Your task to perform on an android device: Go to Google Image 0: 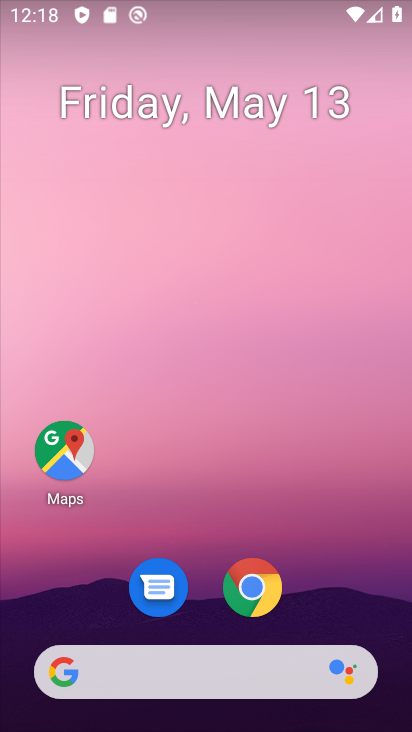
Step 0: drag from (160, 598) to (225, 64)
Your task to perform on an android device: Go to Google Image 1: 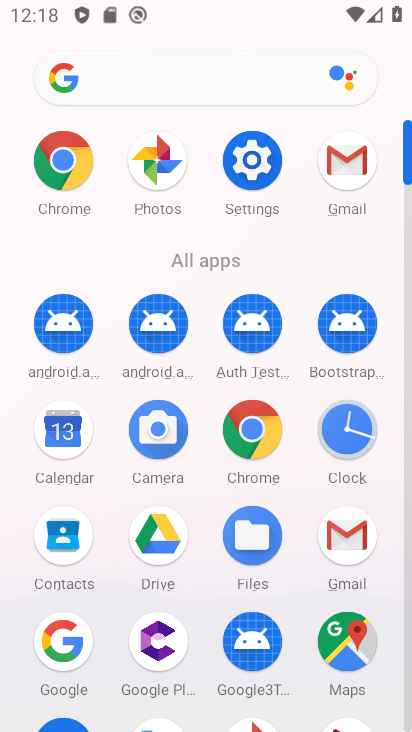
Step 1: click (60, 657)
Your task to perform on an android device: Go to Google Image 2: 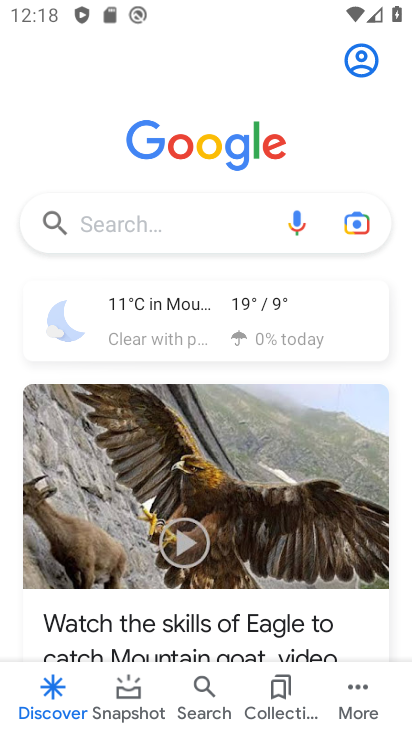
Step 2: task complete